Your task to perform on an android device: turn vacation reply on in the gmail app Image 0: 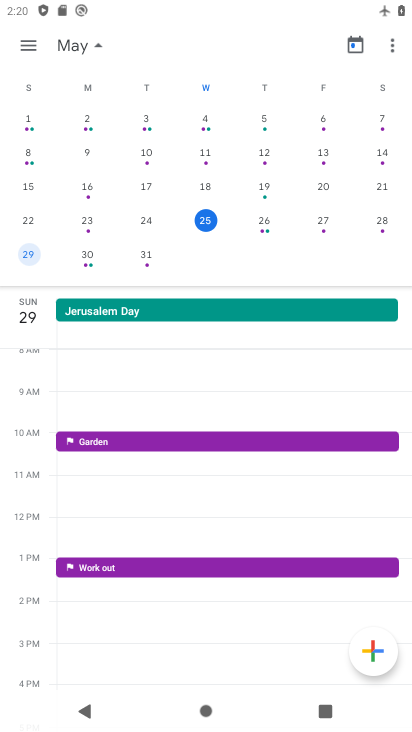
Step 0: press home button
Your task to perform on an android device: turn vacation reply on in the gmail app Image 1: 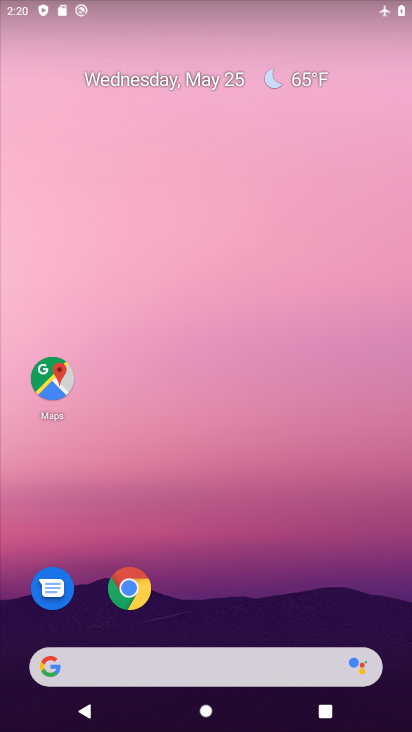
Step 1: drag from (167, 617) to (179, 231)
Your task to perform on an android device: turn vacation reply on in the gmail app Image 2: 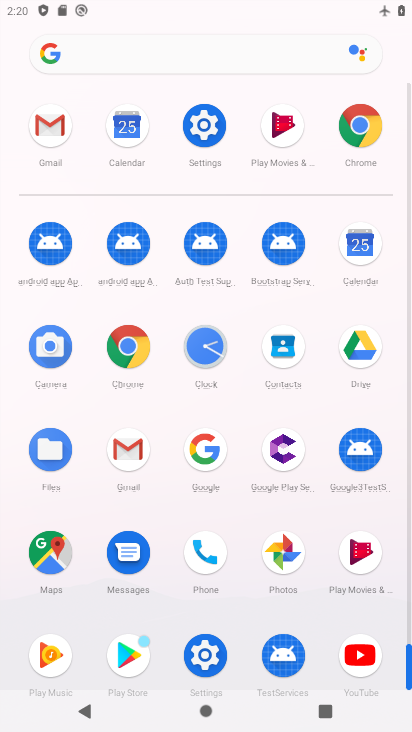
Step 2: click (121, 444)
Your task to perform on an android device: turn vacation reply on in the gmail app Image 3: 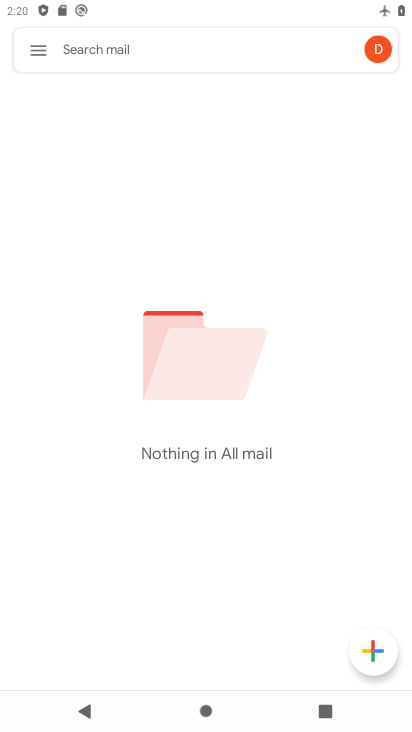
Step 3: click (31, 57)
Your task to perform on an android device: turn vacation reply on in the gmail app Image 4: 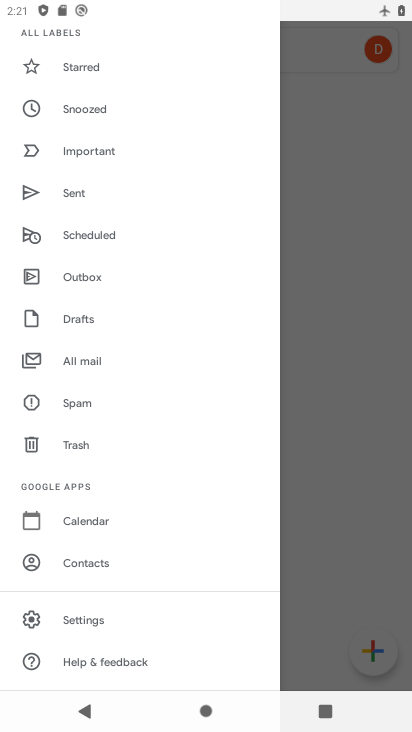
Step 4: click (81, 622)
Your task to perform on an android device: turn vacation reply on in the gmail app Image 5: 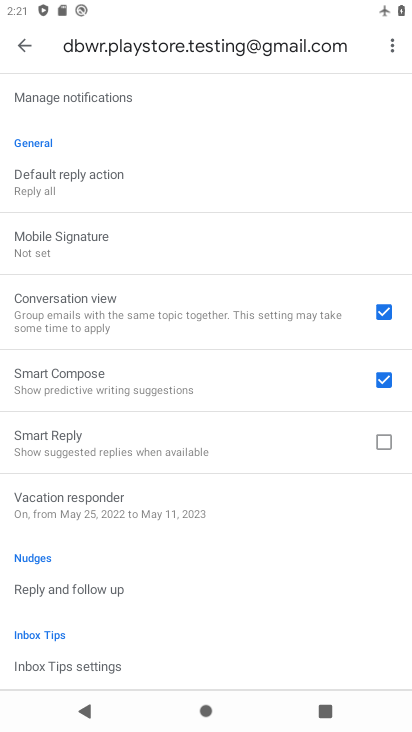
Step 5: click (174, 499)
Your task to perform on an android device: turn vacation reply on in the gmail app Image 6: 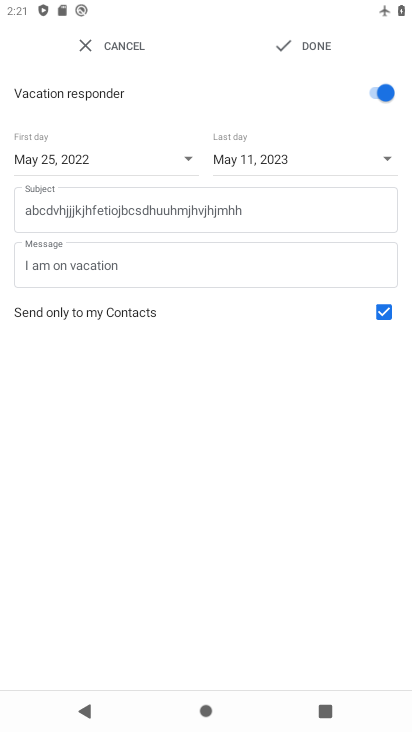
Step 6: task complete